Your task to perform on an android device: Play the last video I watched on Youtube Image 0: 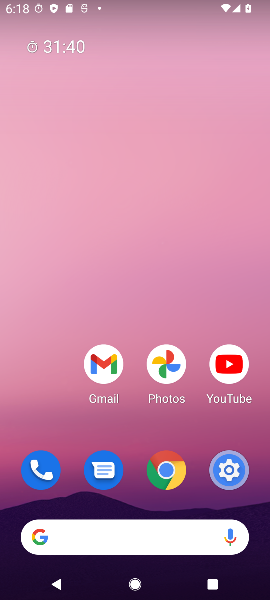
Step 0: drag from (138, 497) to (216, 2)
Your task to perform on an android device: Play the last video I watched on Youtube Image 1: 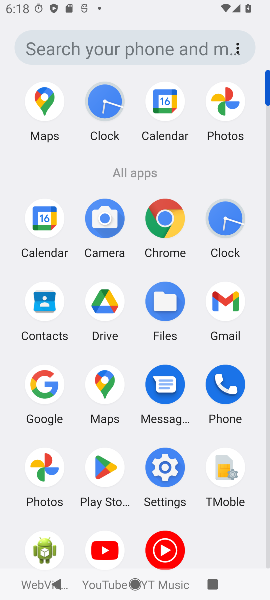
Step 1: click (101, 550)
Your task to perform on an android device: Play the last video I watched on Youtube Image 2: 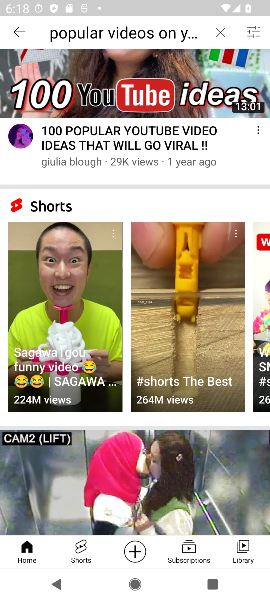
Step 2: click (240, 547)
Your task to perform on an android device: Play the last video I watched on Youtube Image 3: 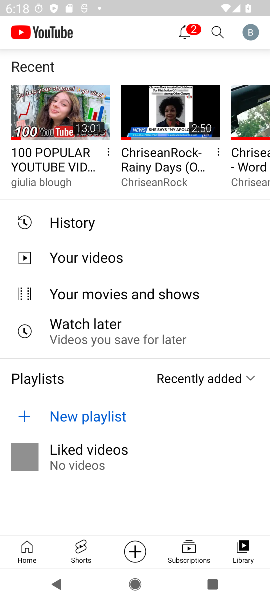
Step 3: click (61, 136)
Your task to perform on an android device: Play the last video I watched on Youtube Image 4: 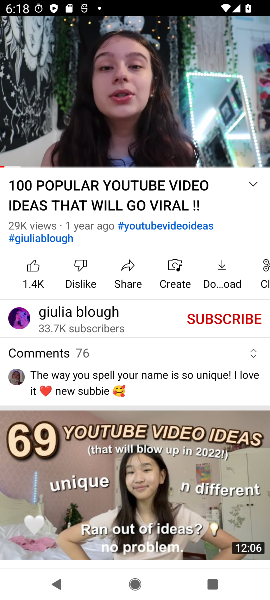
Step 4: task complete